Your task to perform on an android device: Check the weather Image 0: 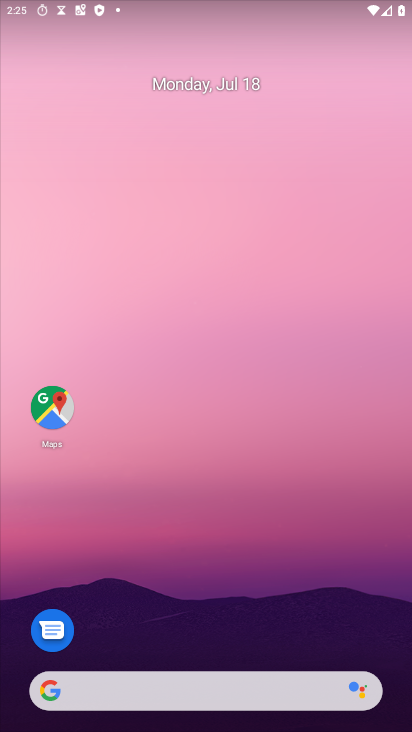
Step 0: drag from (178, 678) to (136, 103)
Your task to perform on an android device: Check the weather Image 1: 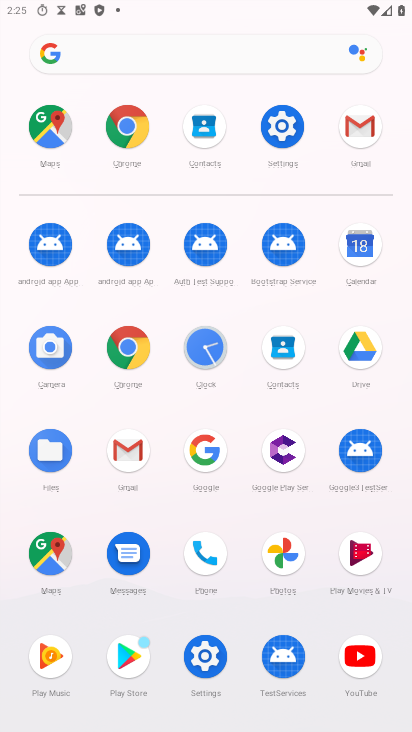
Step 1: click (133, 424)
Your task to perform on an android device: Check the weather Image 2: 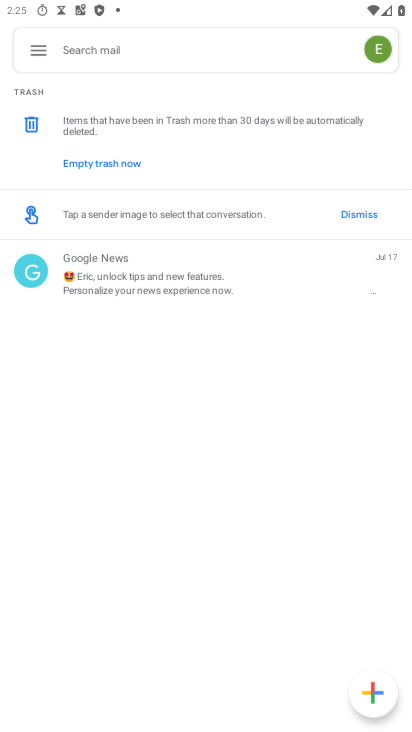
Step 2: click (132, 368)
Your task to perform on an android device: Check the weather Image 3: 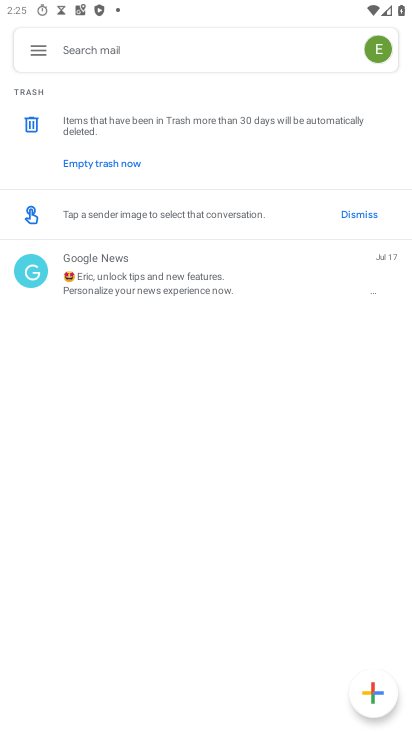
Step 3: press home button
Your task to perform on an android device: Check the weather Image 4: 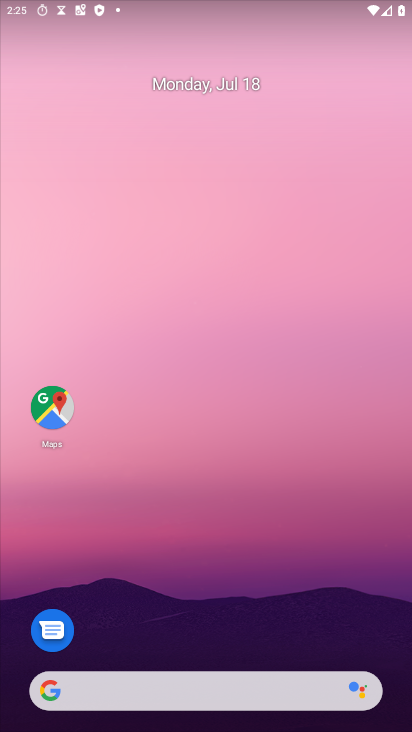
Step 4: drag from (259, 568) to (283, 34)
Your task to perform on an android device: Check the weather Image 5: 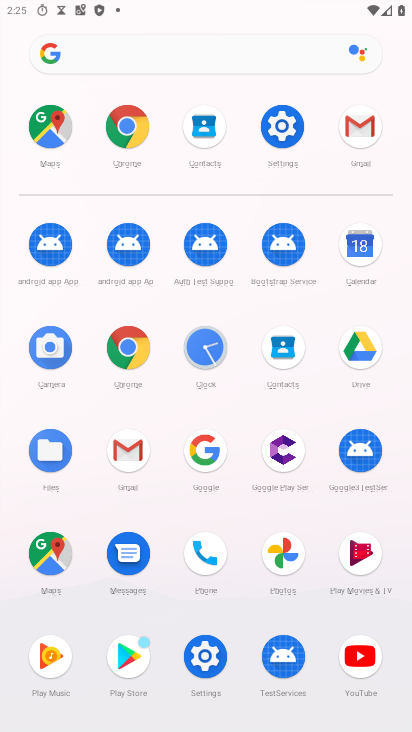
Step 5: click (125, 353)
Your task to perform on an android device: Check the weather Image 6: 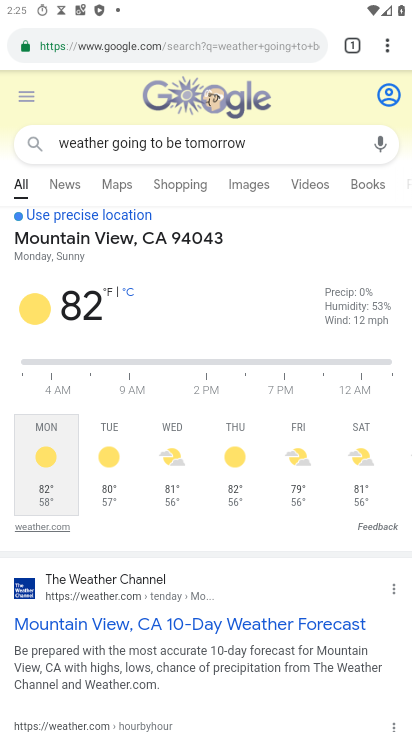
Step 6: click (211, 38)
Your task to perform on an android device: Check the weather Image 7: 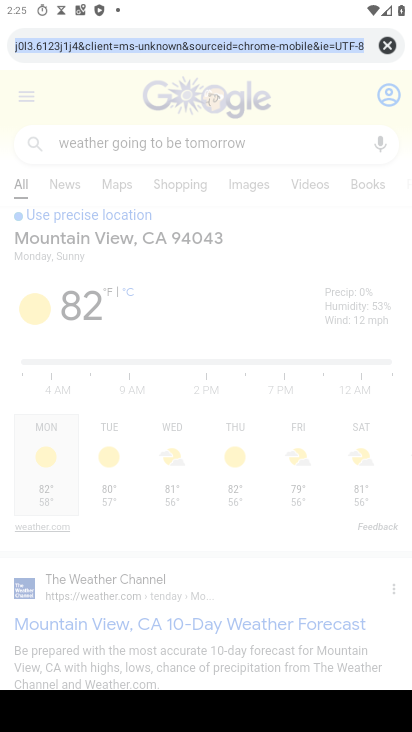
Step 7: type "check the weather"
Your task to perform on an android device: Check the weather Image 8: 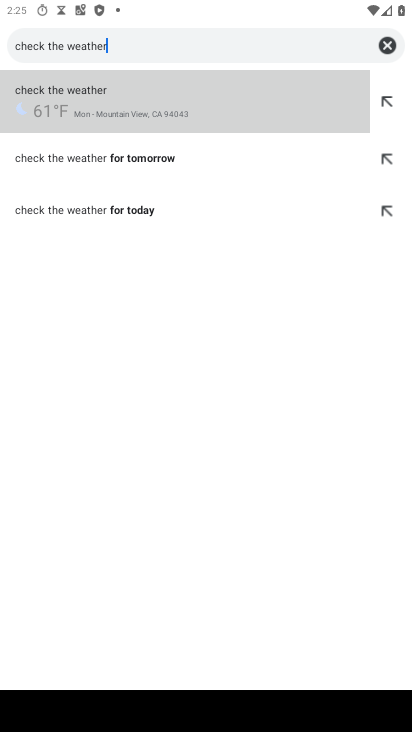
Step 8: click (218, 102)
Your task to perform on an android device: Check the weather Image 9: 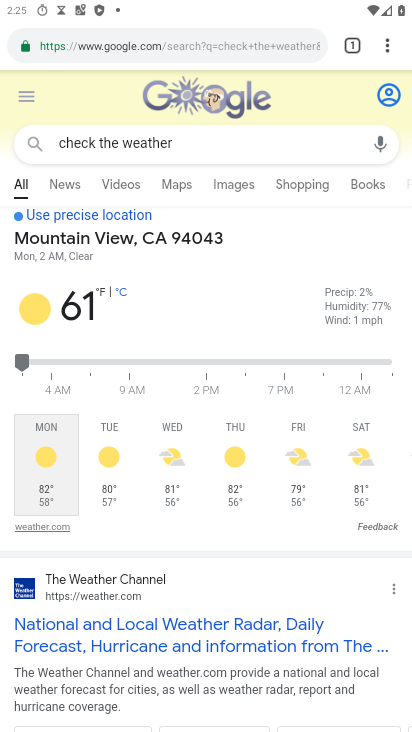
Step 9: task complete